Your task to perform on an android device: toggle javascript in the chrome app Image 0: 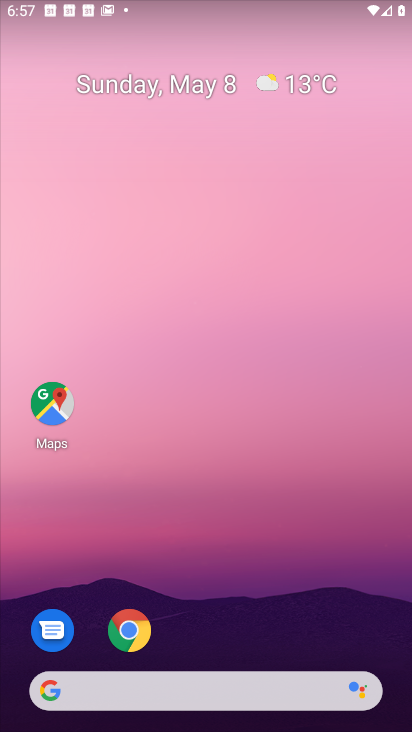
Step 0: click (128, 637)
Your task to perform on an android device: toggle javascript in the chrome app Image 1: 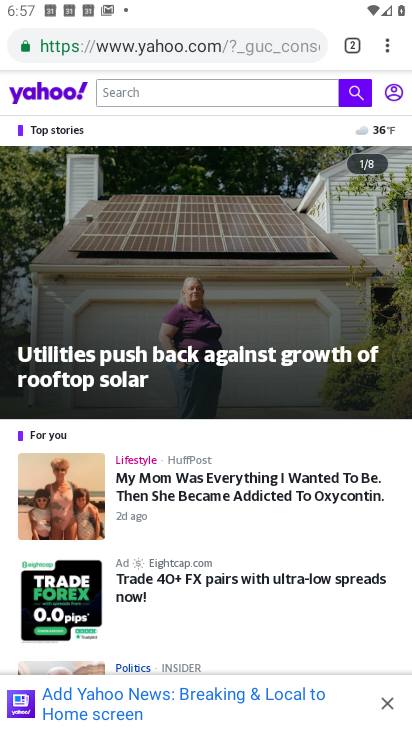
Step 1: click (387, 50)
Your task to perform on an android device: toggle javascript in the chrome app Image 2: 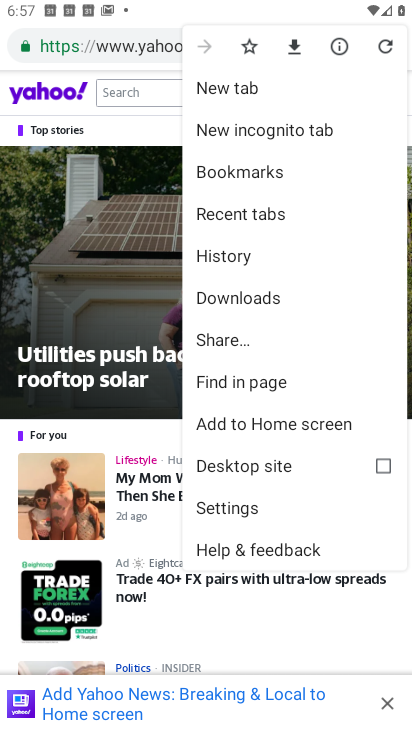
Step 2: click (244, 505)
Your task to perform on an android device: toggle javascript in the chrome app Image 3: 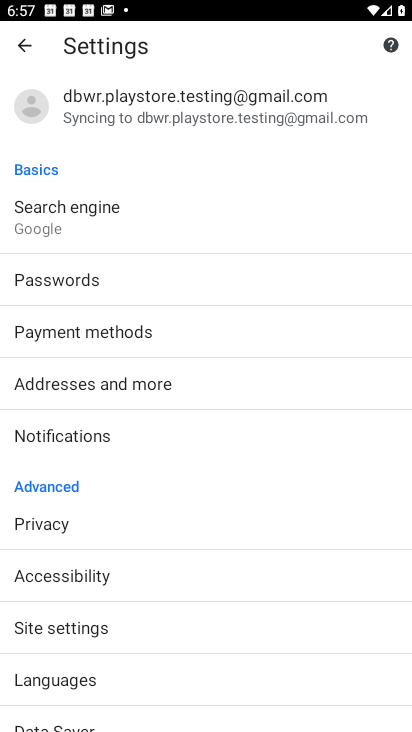
Step 3: drag from (181, 554) to (177, 242)
Your task to perform on an android device: toggle javascript in the chrome app Image 4: 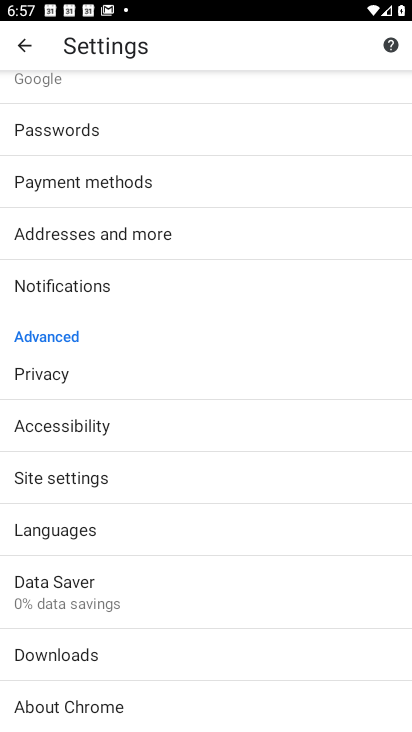
Step 4: click (67, 479)
Your task to perform on an android device: toggle javascript in the chrome app Image 5: 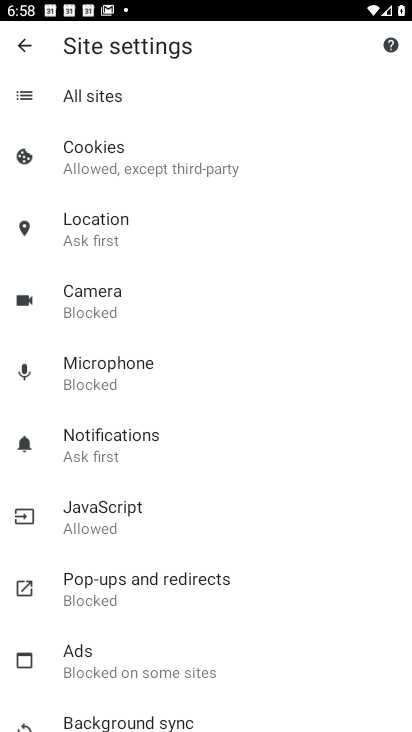
Step 5: click (86, 506)
Your task to perform on an android device: toggle javascript in the chrome app Image 6: 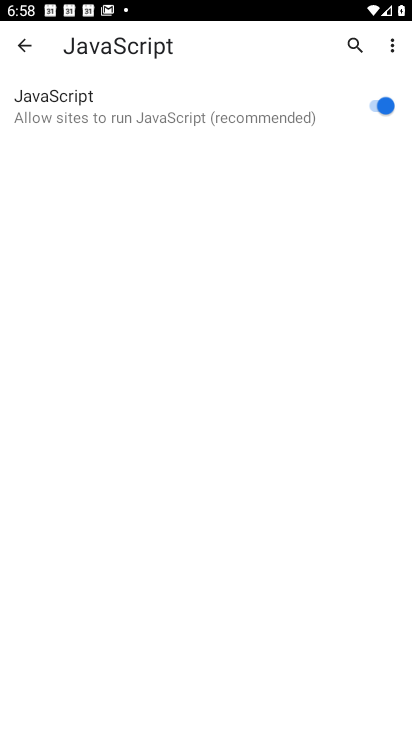
Step 6: click (385, 105)
Your task to perform on an android device: toggle javascript in the chrome app Image 7: 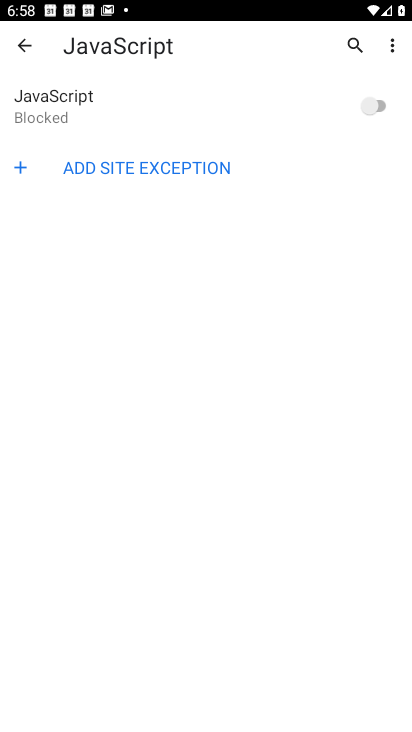
Step 7: task complete